Your task to perform on an android device: change the clock display to show seconds Image 0: 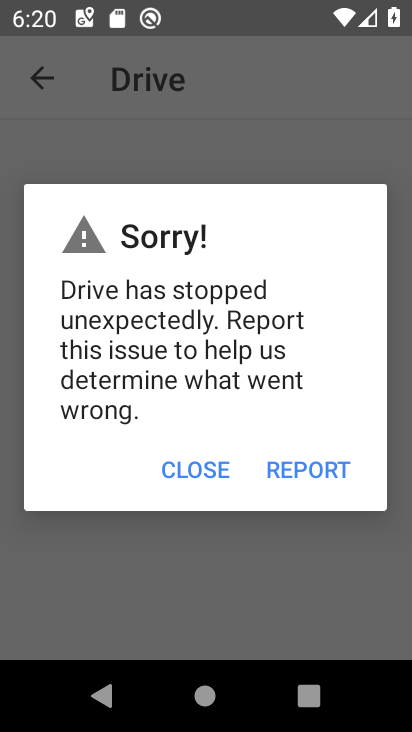
Step 0: press home button
Your task to perform on an android device: change the clock display to show seconds Image 1: 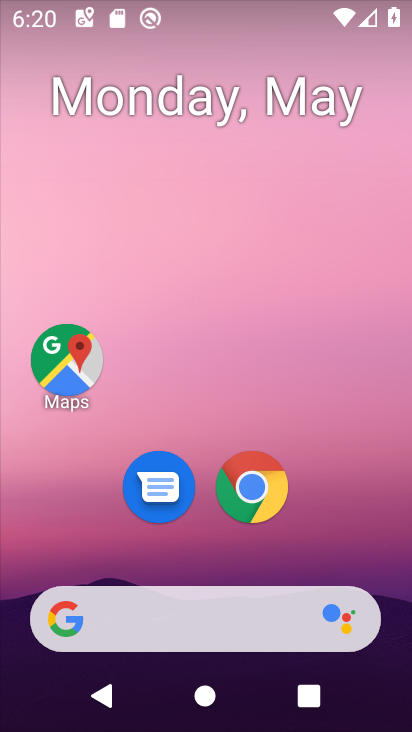
Step 1: drag from (219, 557) to (273, 66)
Your task to perform on an android device: change the clock display to show seconds Image 2: 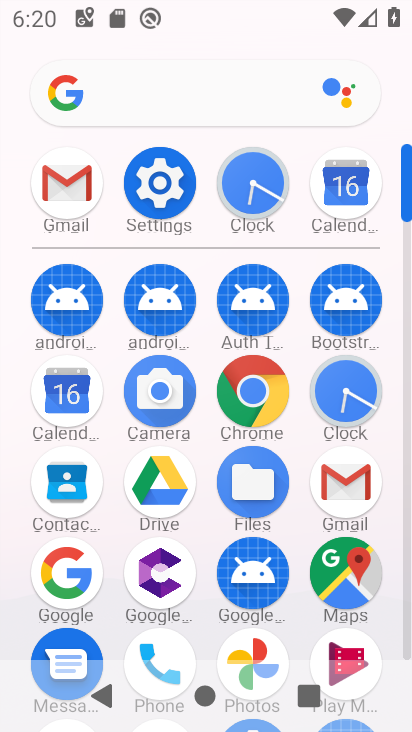
Step 2: click (243, 170)
Your task to perform on an android device: change the clock display to show seconds Image 3: 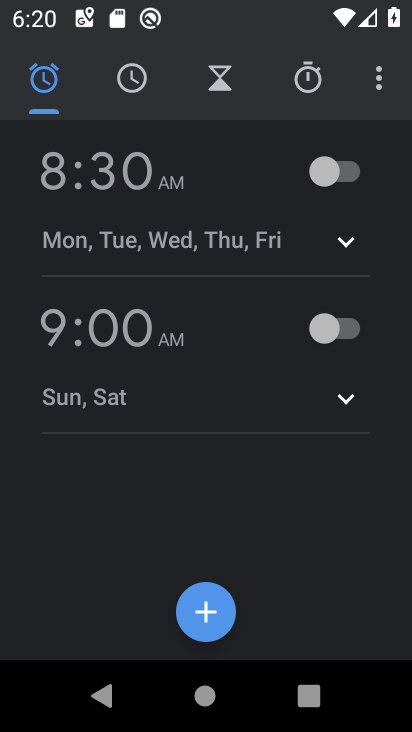
Step 3: click (382, 74)
Your task to perform on an android device: change the clock display to show seconds Image 4: 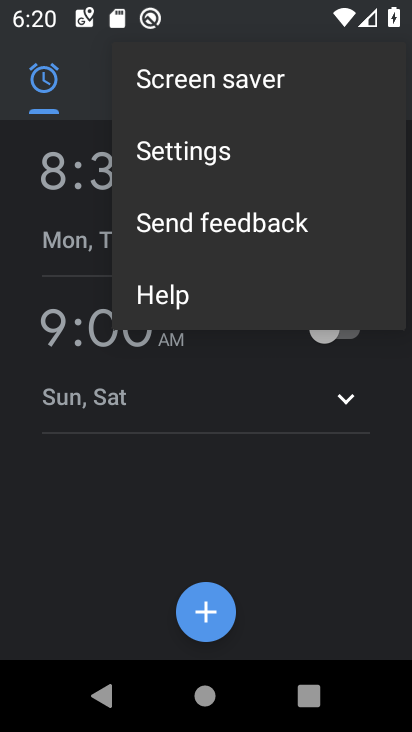
Step 4: click (240, 134)
Your task to perform on an android device: change the clock display to show seconds Image 5: 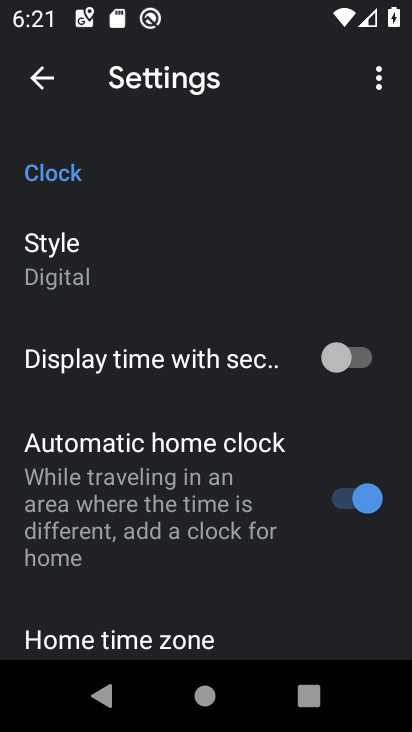
Step 5: click (351, 356)
Your task to perform on an android device: change the clock display to show seconds Image 6: 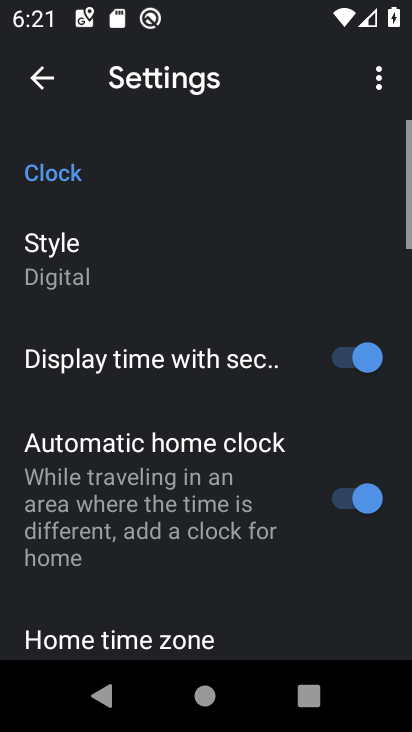
Step 6: task complete